Your task to perform on an android device: toggle javascript in the chrome app Image 0: 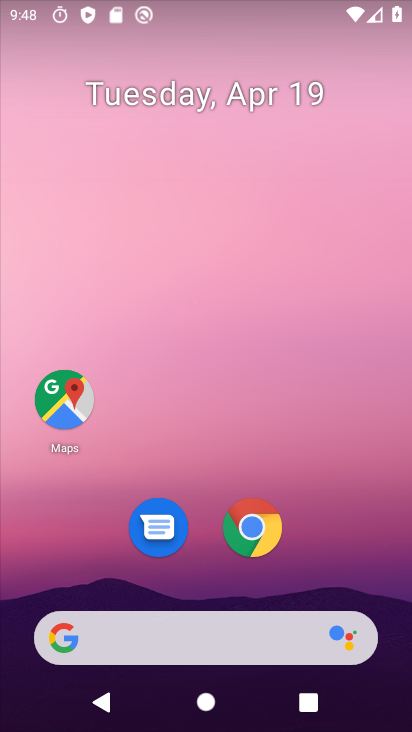
Step 0: drag from (243, 672) to (329, 149)
Your task to perform on an android device: toggle javascript in the chrome app Image 1: 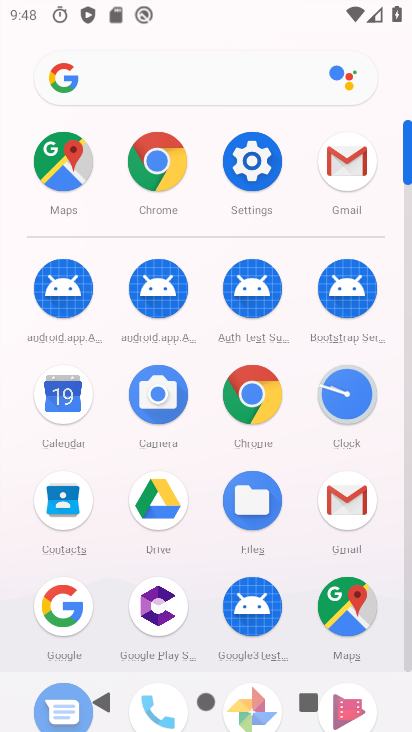
Step 1: drag from (208, 553) to (259, 322)
Your task to perform on an android device: toggle javascript in the chrome app Image 2: 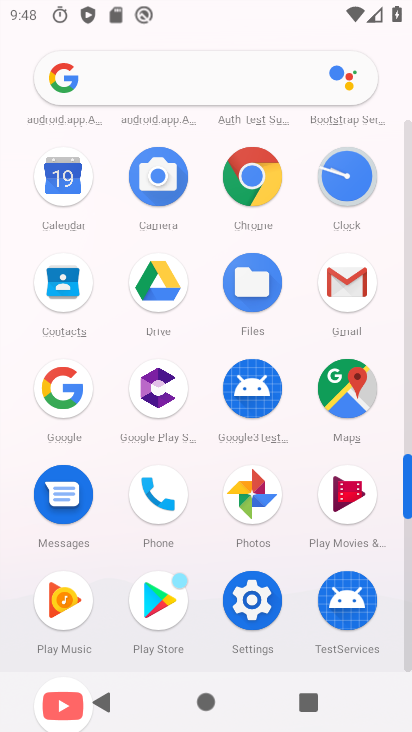
Step 2: click (257, 181)
Your task to perform on an android device: toggle javascript in the chrome app Image 3: 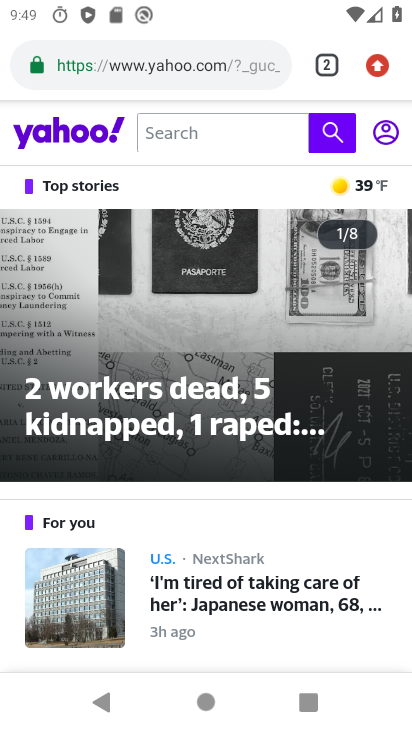
Step 3: click (374, 70)
Your task to perform on an android device: toggle javascript in the chrome app Image 4: 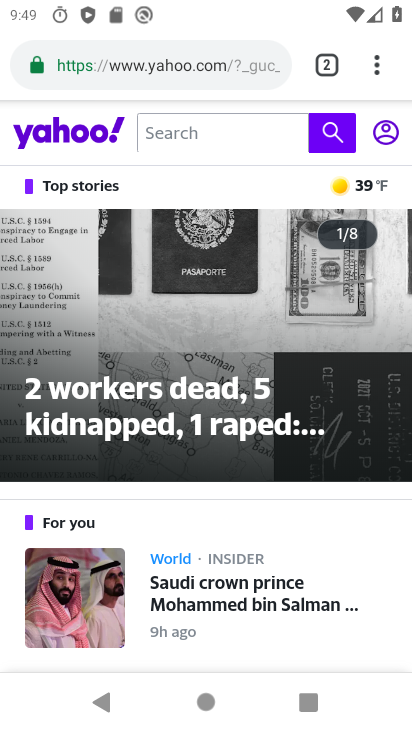
Step 4: click (376, 62)
Your task to perform on an android device: toggle javascript in the chrome app Image 5: 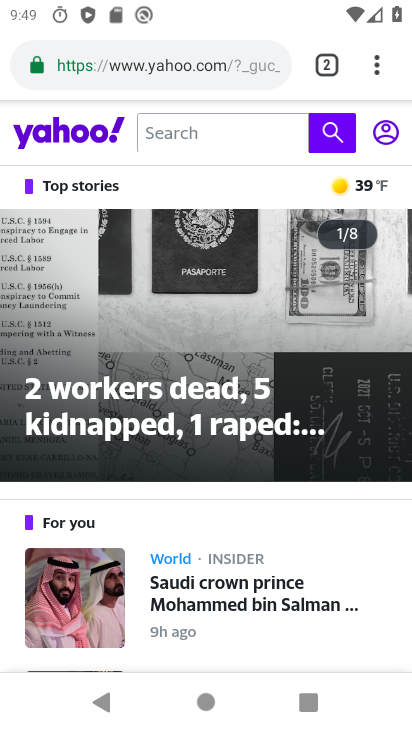
Step 5: click (372, 63)
Your task to perform on an android device: toggle javascript in the chrome app Image 6: 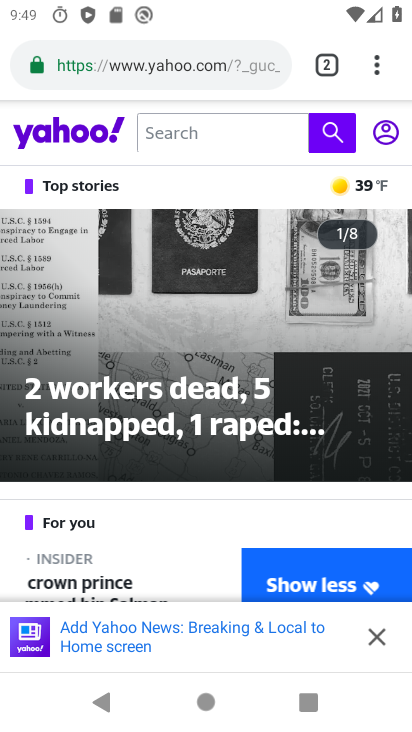
Step 6: click (379, 63)
Your task to perform on an android device: toggle javascript in the chrome app Image 7: 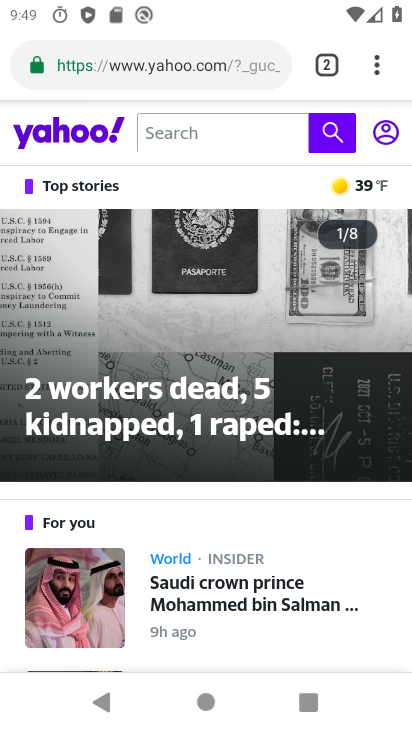
Step 7: click (371, 64)
Your task to perform on an android device: toggle javascript in the chrome app Image 8: 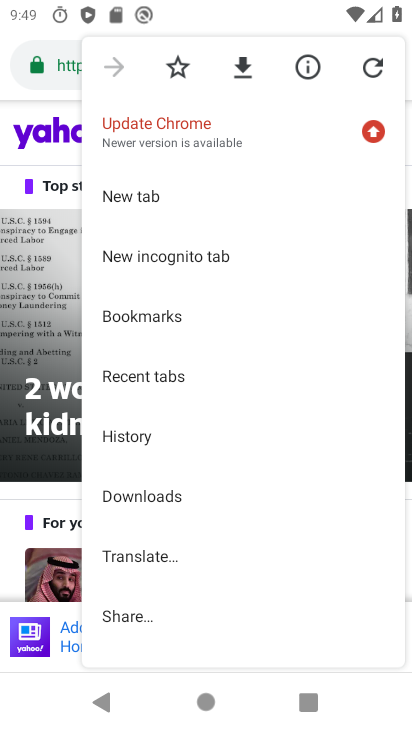
Step 8: drag from (202, 617) to (193, 497)
Your task to perform on an android device: toggle javascript in the chrome app Image 9: 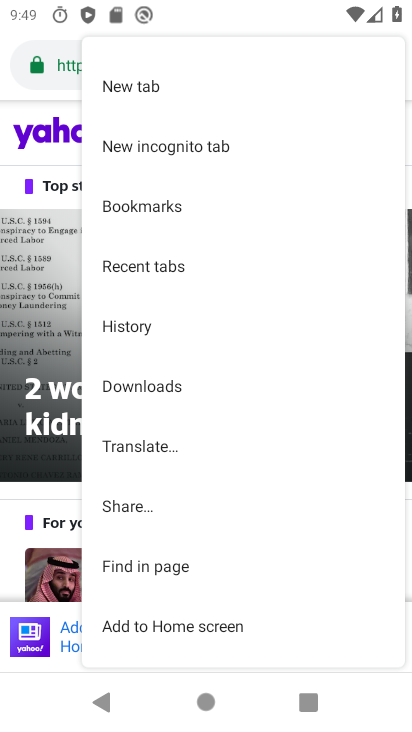
Step 9: drag from (199, 492) to (223, 419)
Your task to perform on an android device: toggle javascript in the chrome app Image 10: 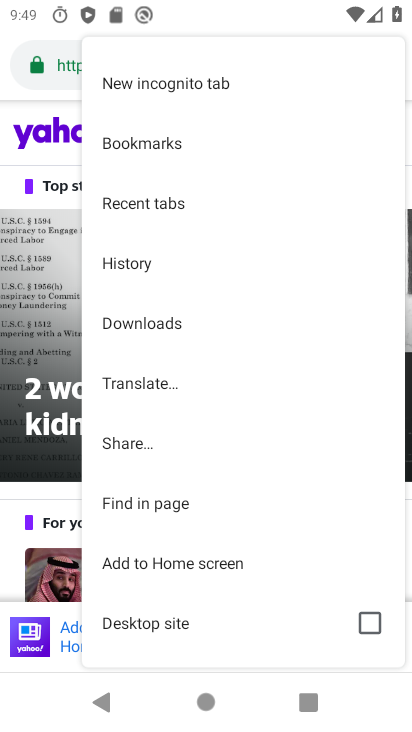
Step 10: drag from (160, 606) to (194, 454)
Your task to perform on an android device: toggle javascript in the chrome app Image 11: 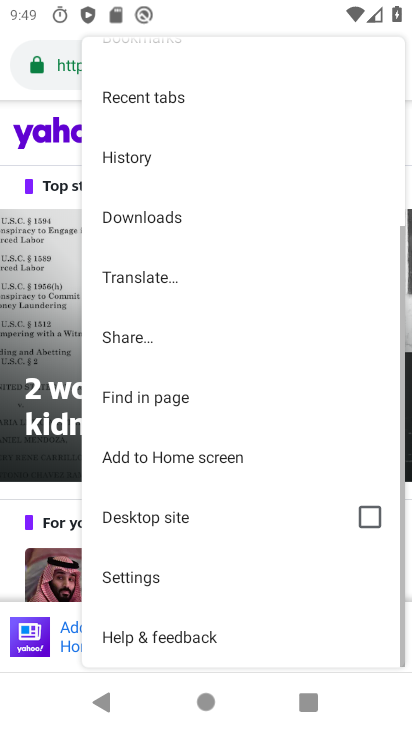
Step 11: click (158, 574)
Your task to perform on an android device: toggle javascript in the chrome app Image 12: 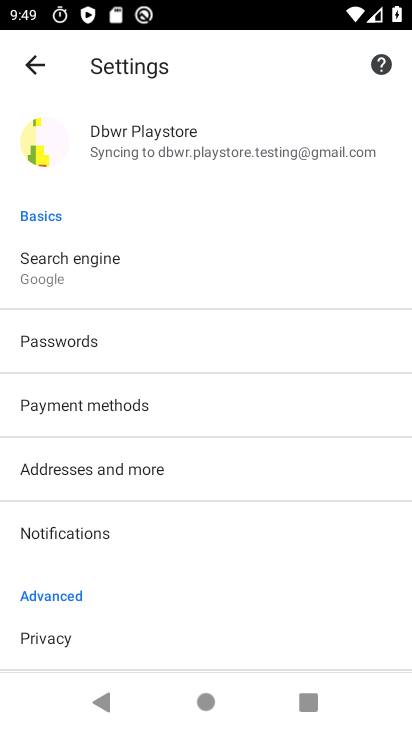
Step 12: drag from (110, 560) to (175, 239)
Your task to perform on an android device: toggle javascript in the chrome app Image 13: 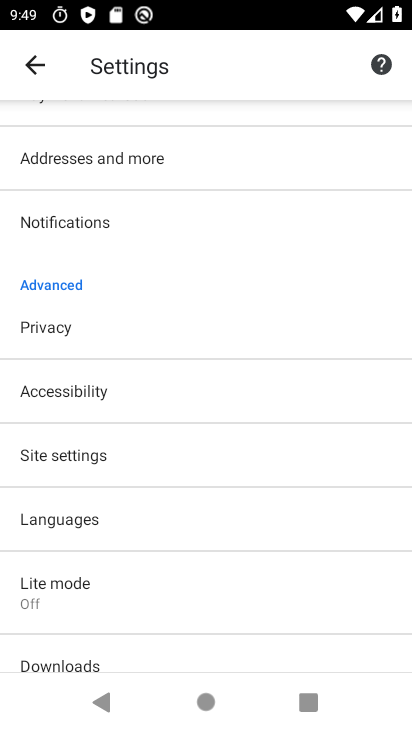
Step 13: drag from (76, 602) to (163, 400)
Your task to perform on an android device: toggle javascript in the chrome app Image 14: 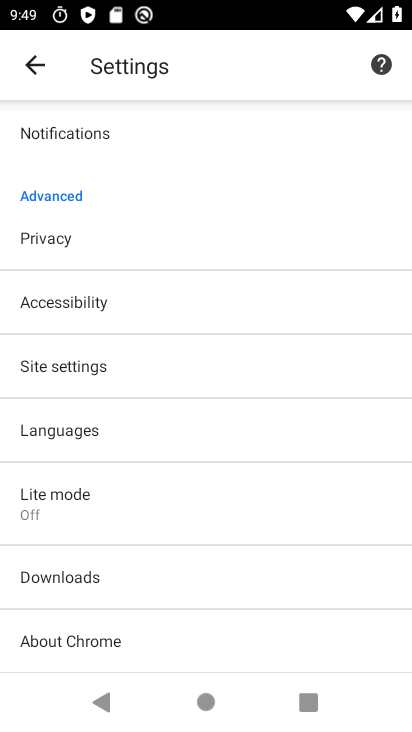
Step 14: click (86, 363)
Your task to perform on an android device: toggle javascript in the chrome app Image 15: 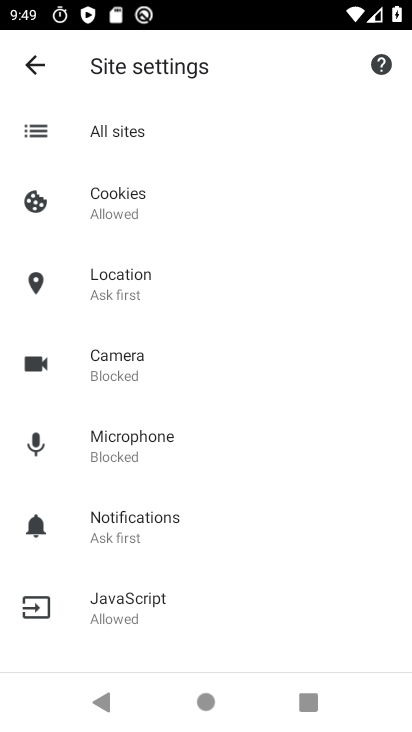
Step 15: click (152, 599)
Your task to perform on an android device: toggle javascript in the chrome app Image 16: 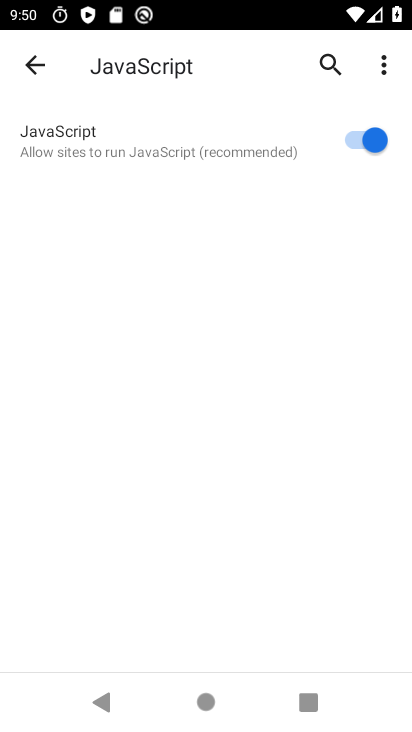
Step 16: click (310, 139)
Your task to perform on an android device: toggle javascript in the chrome app Image 17: 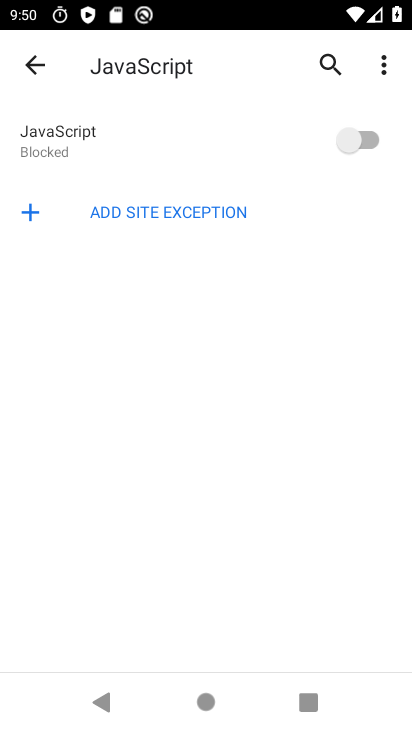
Step 17: click (247, 134)
Your task to perform on an android device: toggle javascript in the chrome app Image 18: 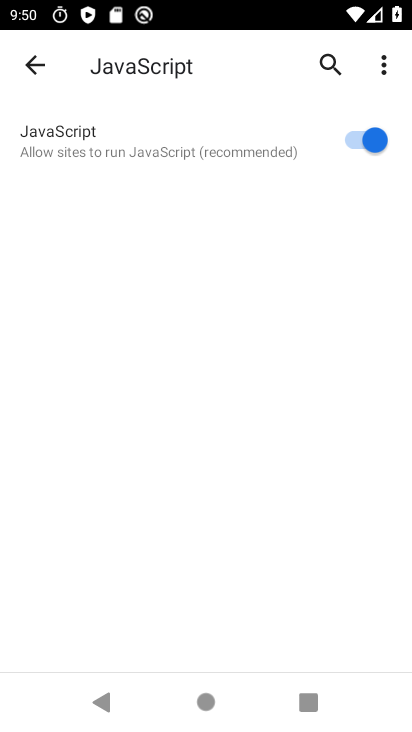
Step 18: task complete